Your task to perform on an android device: set an alarm Image 0: 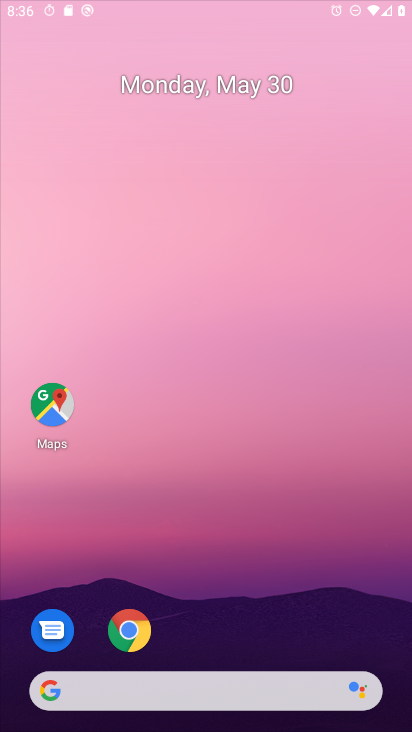
Step 0: drag from (341, 622) to (288, 27)
Your task to perform on an android device: set an alarm Image 1: 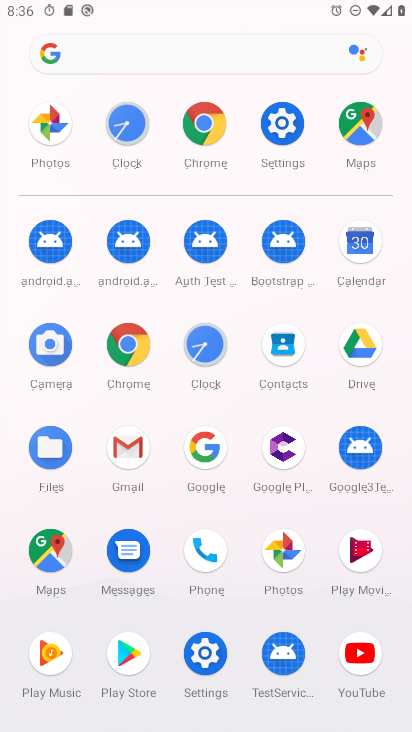
Step 1: click (141, 126)
Your task to perform on an android device: set an alarm Image 2: 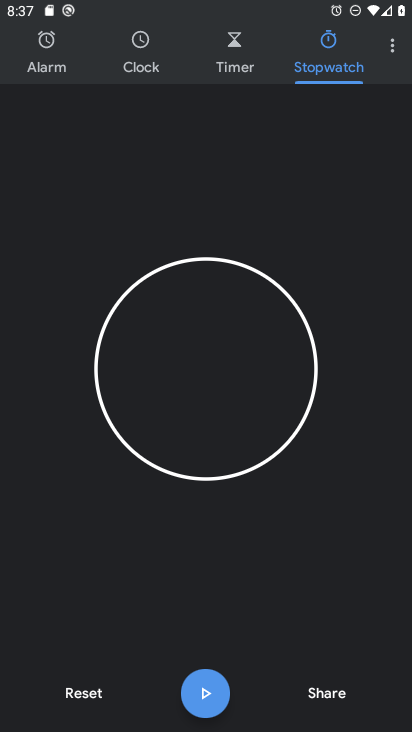
Step 2: click (48, 57)
Your task to perform on an android device: set an alarm Image 3: 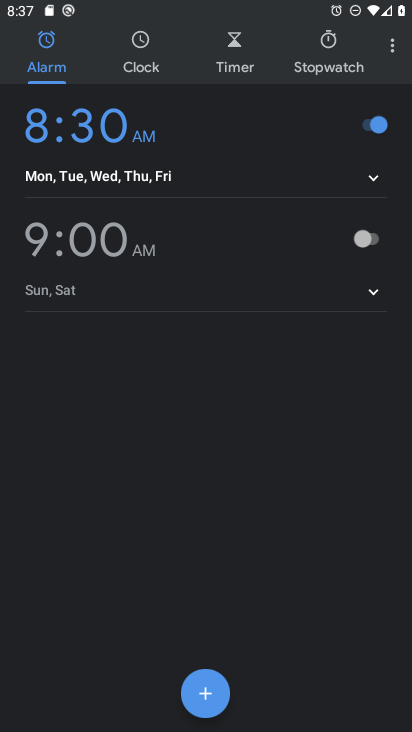
Step 3: click (354, 232)
Your task to perform on an android device: set an alarm Image 4: 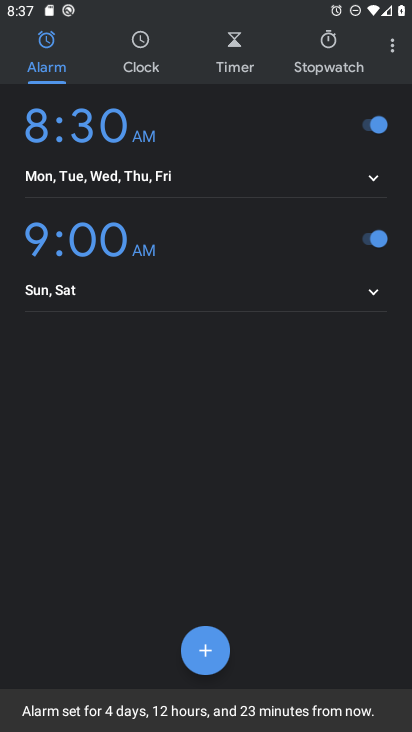
Step 4: task complete